Your task to perform on an android device: find which apps use the phone's location Image 0: 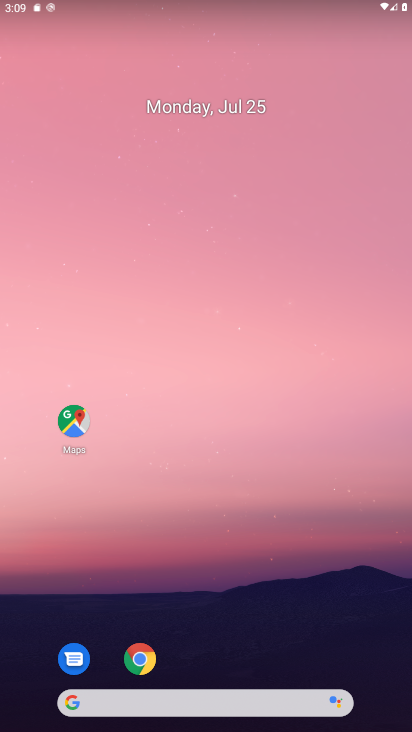
Step 0: drag from (200, 542) to (210, 248)
Your task to perform on an android device: find which apps use the phone's location Image 1: 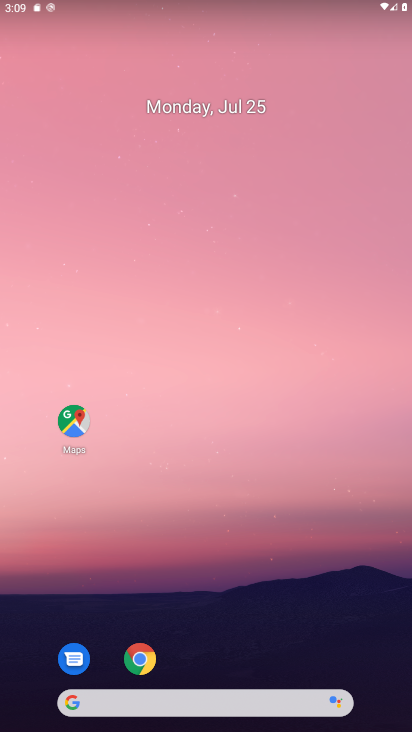
Step 1: drag from (193, 663) to (163, 97)
Your task to perform on an android device: find which apps use the phone's location Image 2: 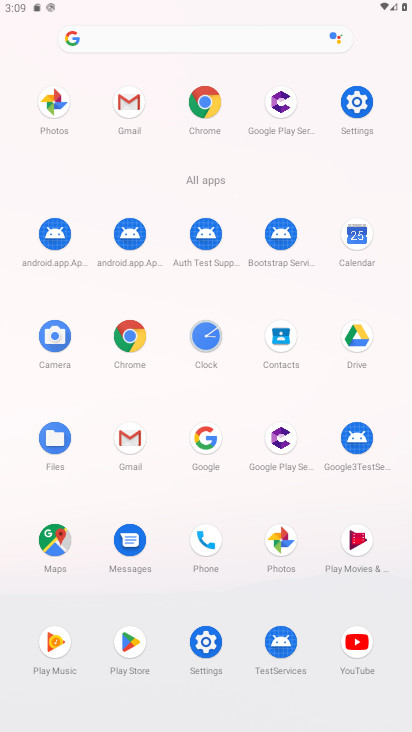
Step 2: click (359, 111)
Your task to perform on an android device: find which apps use the phone's location Image 3: 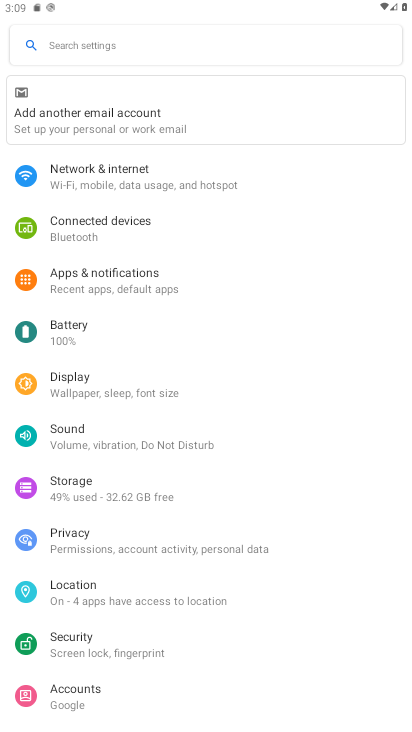
Step 3: click (65, 598)
Your task to perform on an android device: find which apps use the phone's location Image 4: 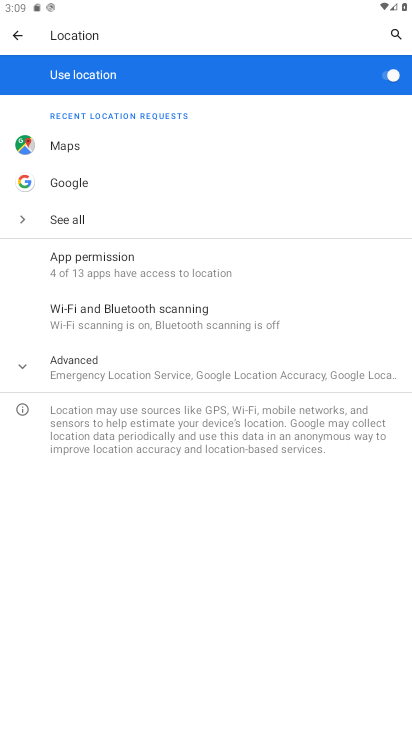
Step 4: click (83, 259)
Your task to perform on an android device: find which apps use the phone's location Image 5: 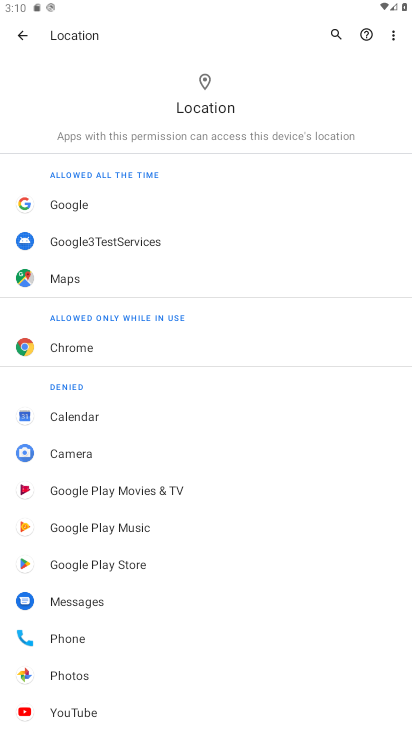
Step 5: task complete